Your task to perform on an android device: Open the phone app and click the voicemail tab. Image 0: 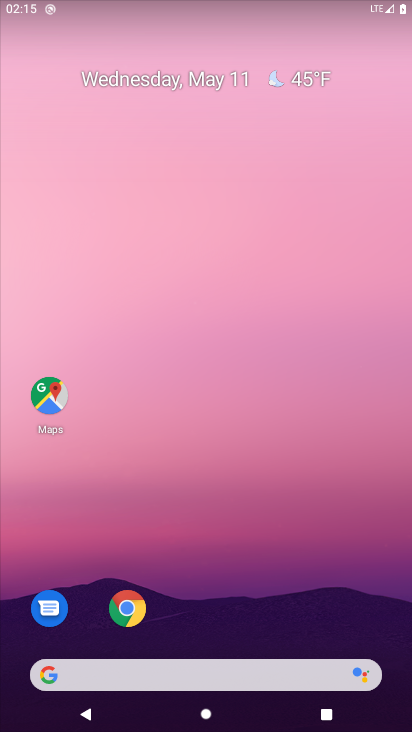
Step 0: drag from (211, 638) to (265, 89)
Your task to perform on an android device: Open the phone app and click the voicemail tab. Image 1: 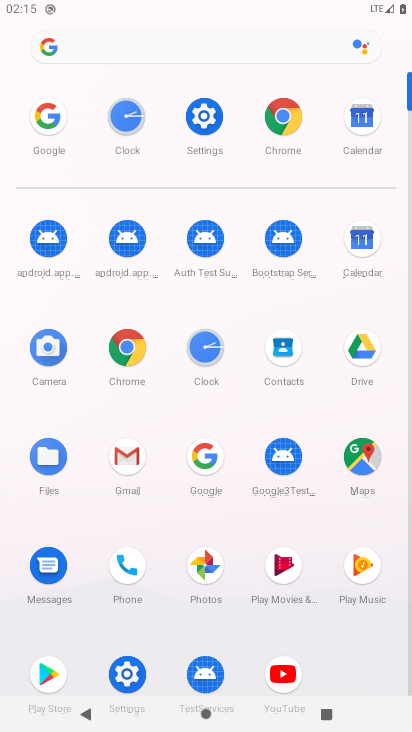
Step 1: click (124, 562)
Your task to perform on an android device: Open the phone app and click the voicemail tab. Image 2: 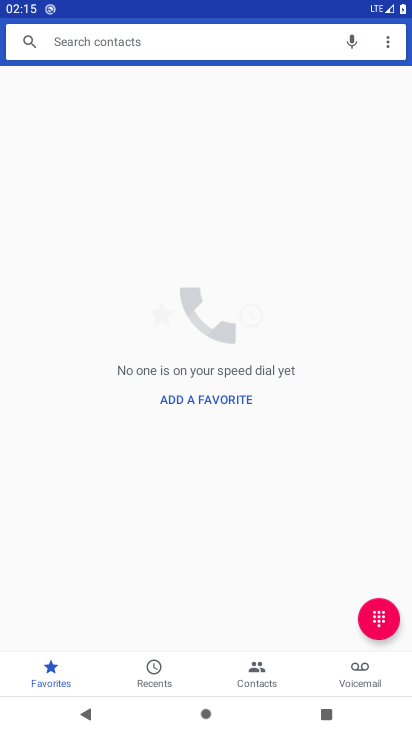
Step 2: click (359, 668)
Your task to perform on an android device: Open the phone app and click the voicemail tab. Image 3: 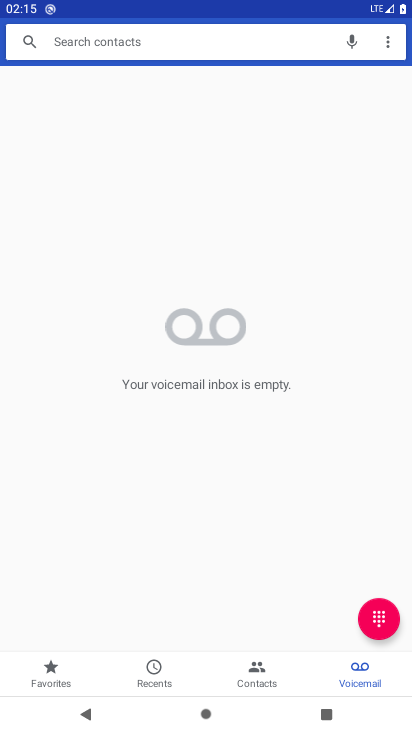
Step 3: task complete